Your task to perform on an android device: What's the weather going to be this weekend? Image 0: 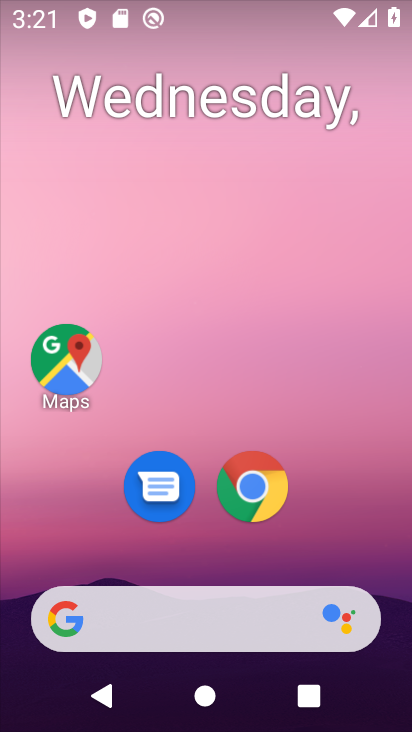
Step 0: drag from (217, 592) to (269, 181)
Your task to perform on an android device: What's the weather going to be this weekend? Image 1: 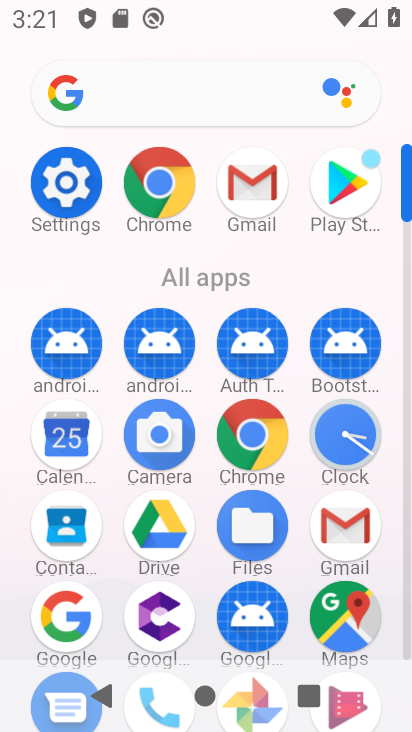
Step 1: drag from (202, 657) to (221, 237)
Your task to perform on an android device: What's the weather going to be this weekend? Image 2: 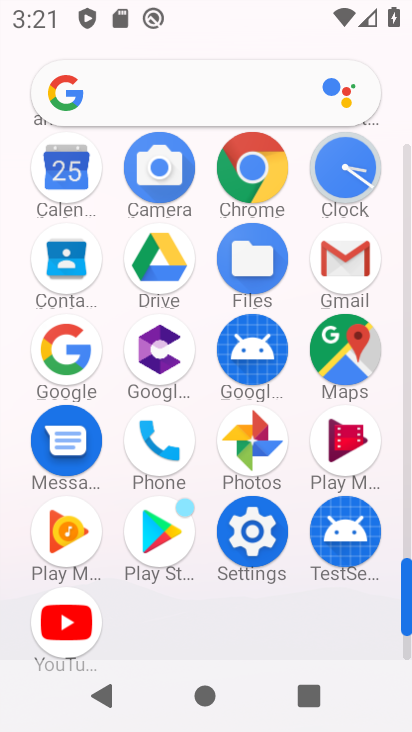
Step 2: click (62, 354)
Your task to perform on an android device: What's the weather going to be this weekend? Image 3: 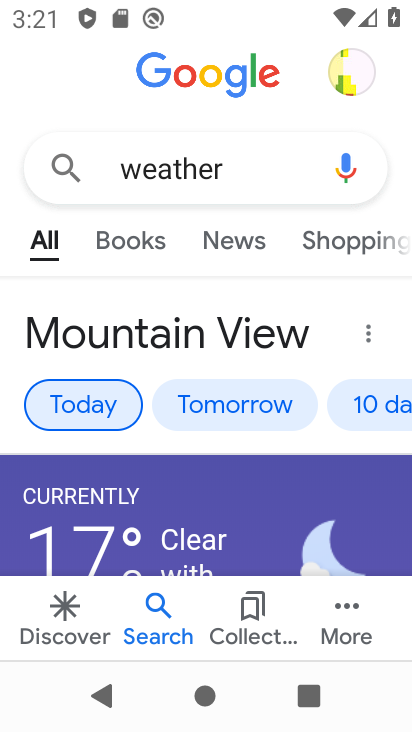
Step 3: drag from (197, 517) to (226, 198)
Your task to perform on an android device: What's the weather going to be this weekend? Image 4: 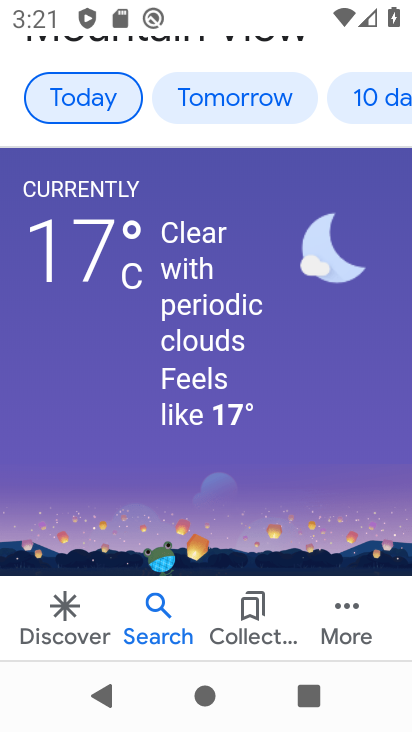
Step 4: click (390, 94)
Your task to perform on an android device: What's the weather going to be this weekend? Image 5: 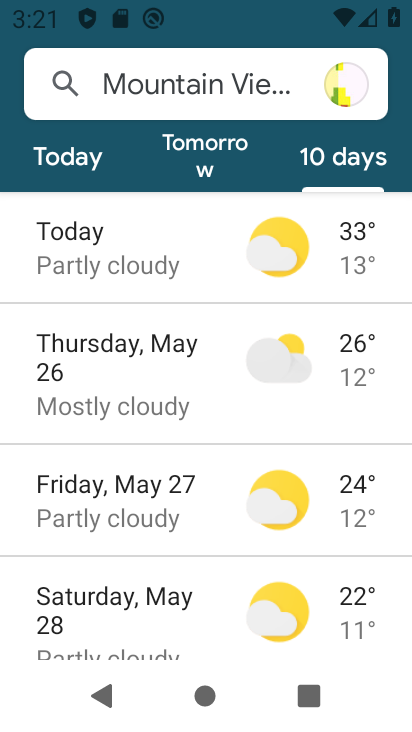
Step 5: task complete